Your task to perform on an android device: open app "Grab" (install if not already installed) and enter user name: "interspersion@gmail.com" and password: "aristocrats" Image 0: 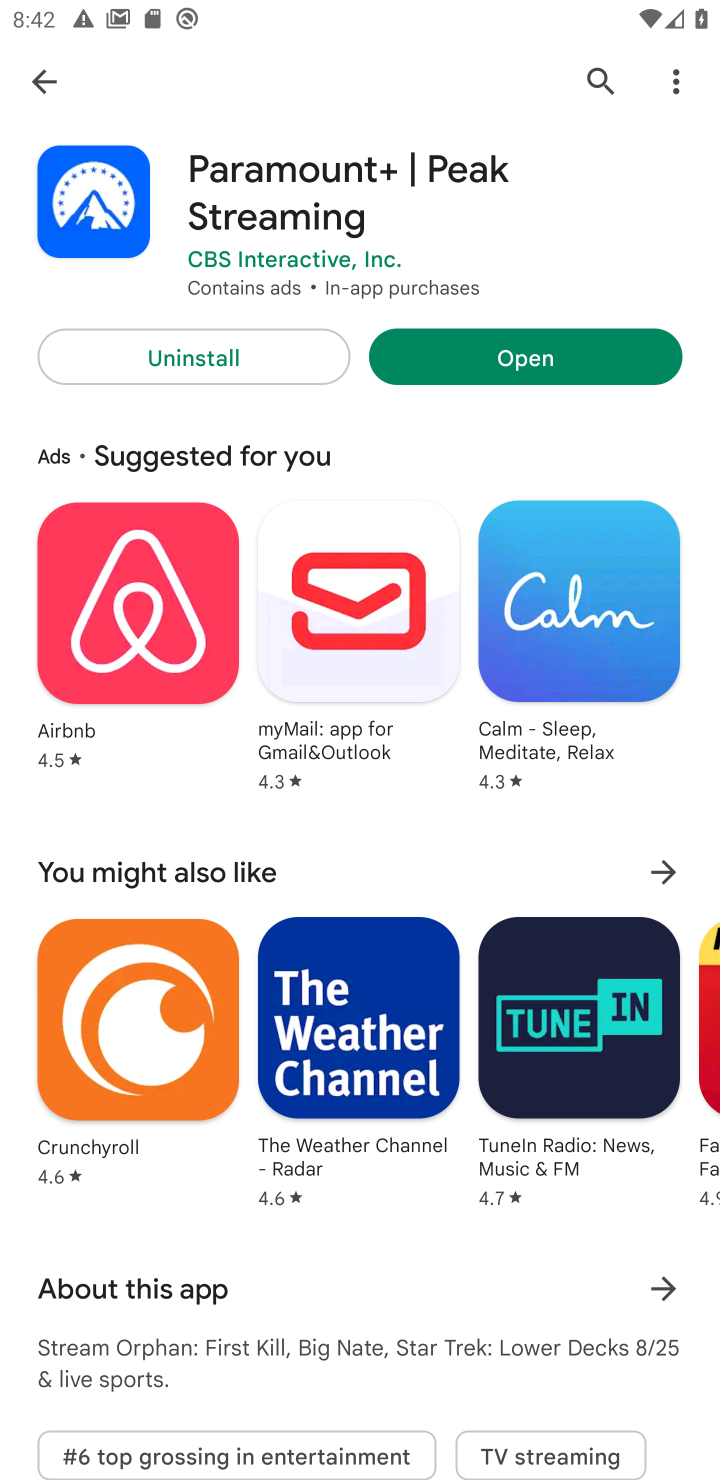
Step 0: press back button
Your task to perform on an android device: open app "Grab" (install if not already installed) and enter user name: "interspersion@gmail.com" and password: "aristocrats" Image 1: 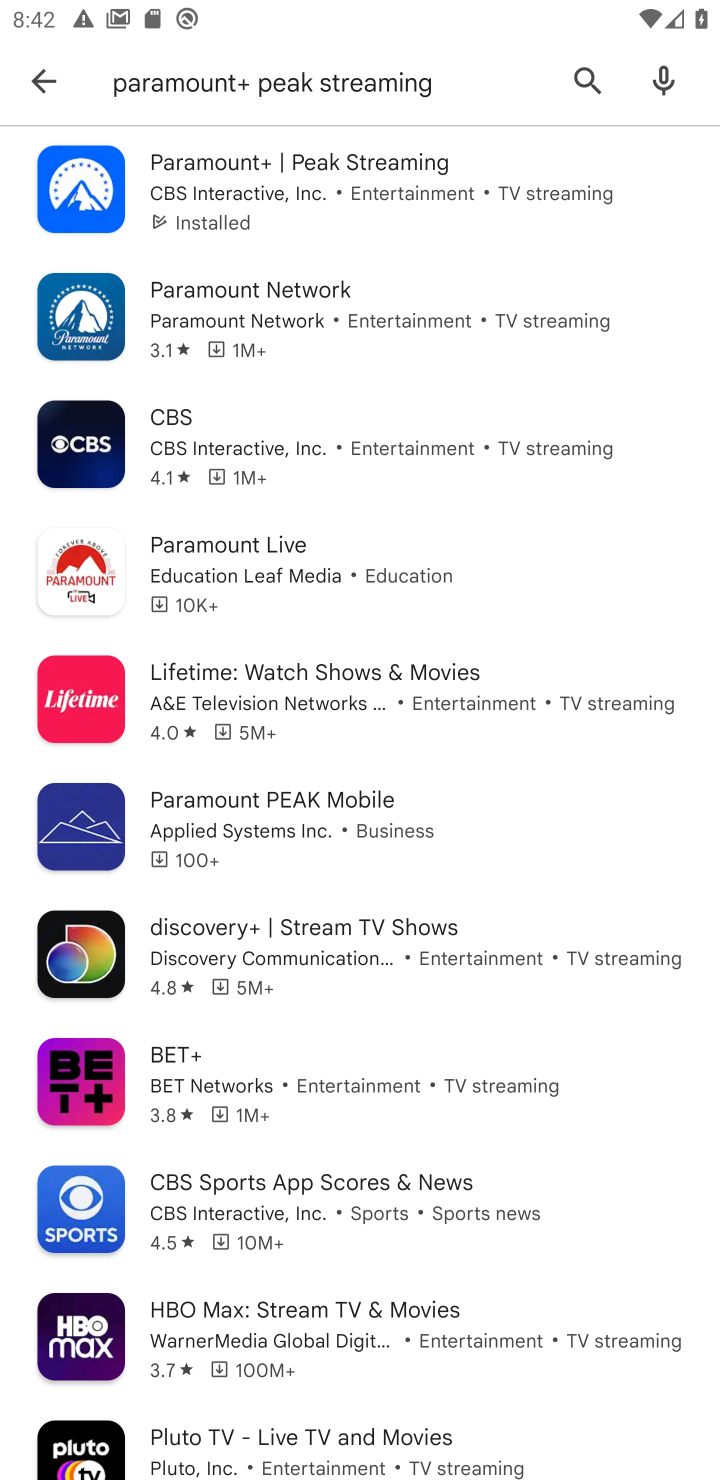
Step 1: press home button
Your task to perform on an android device: open app "Grab" (install if not already installed) and enter user name: "interspersion@gmail.com" and password: "aristocrats" Image 2: 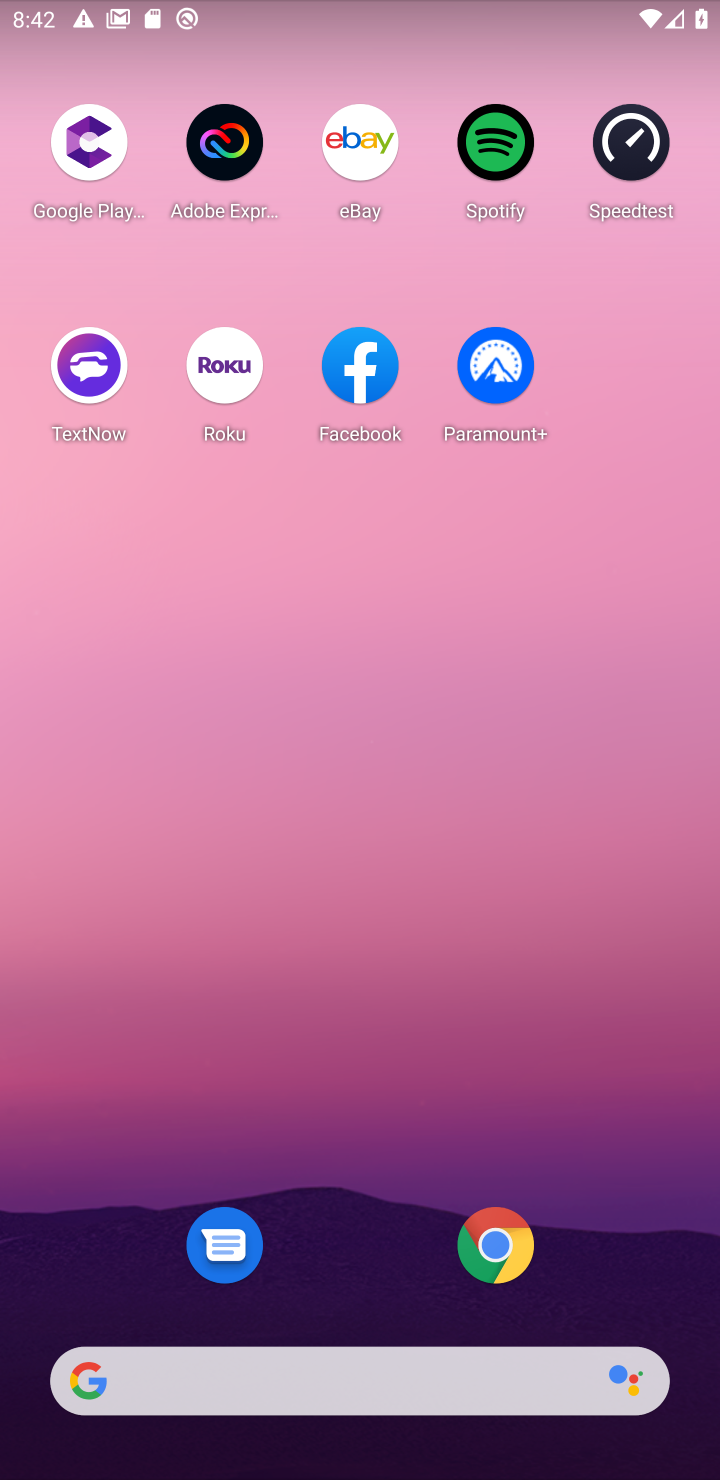
Step 2: drag from (438, 1332) to (300, 87)
Your task to perform on an android device: open app "Grab" (install if not already installed) and enter user name: "interspersion@gmail.com" and password: "aristocrats" Image 3: 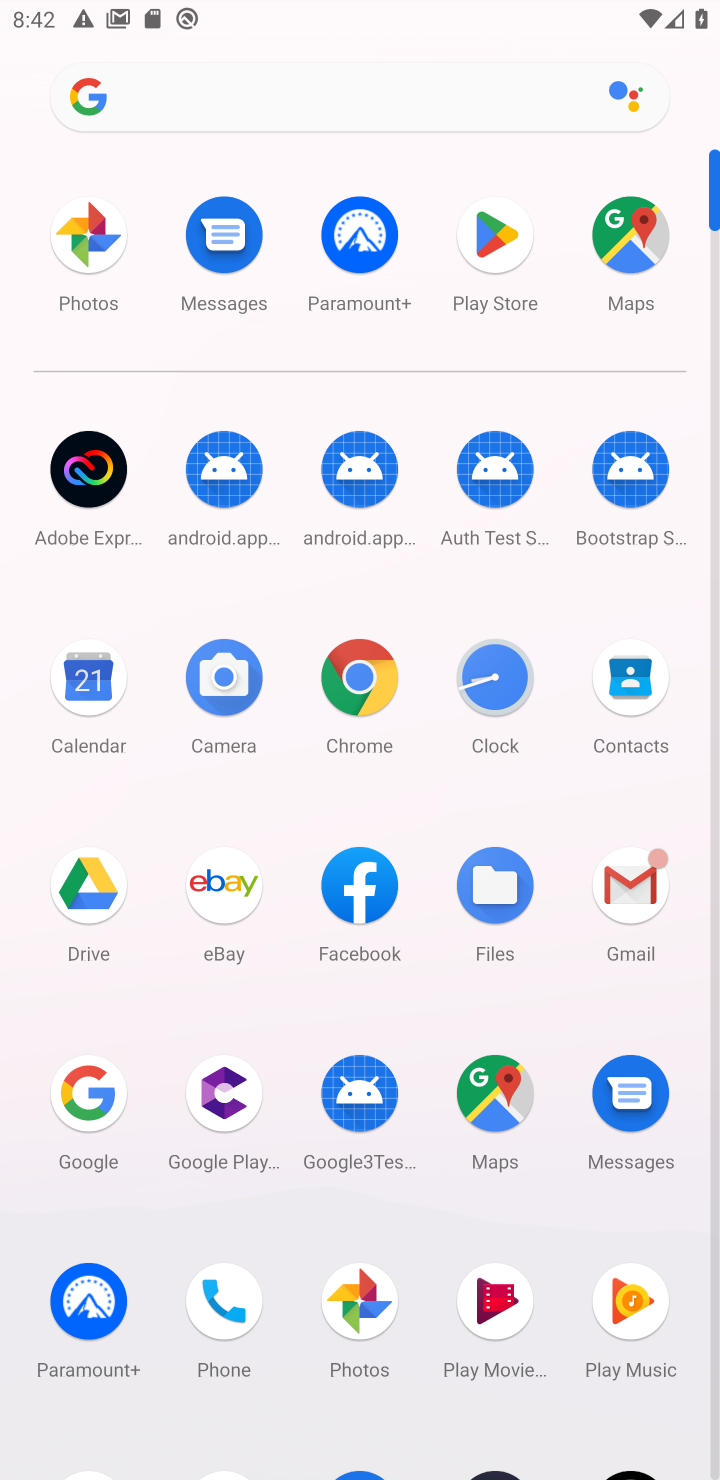
Step 3: drag from (444, 1224) to (534, 223)
Your task to perform on an android device: open app "Grab" (install if not already installed) and enter user name: "interspersion@gmail.com" and password: "aristocrats" Image 4: 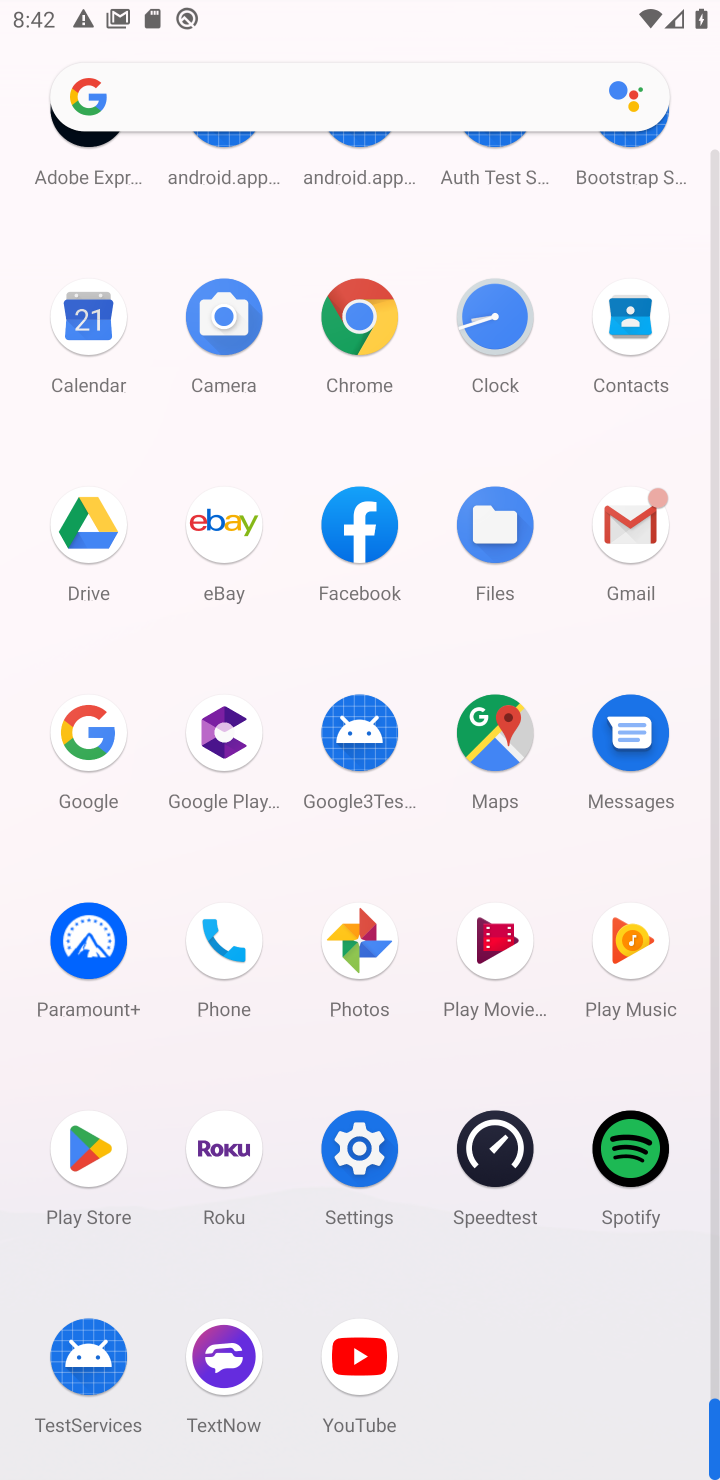
Step 4: click (76, 1154)
Your task to perform on an android device: open app "Grab" (install if not already installed) and enter user name: "interspersion@gmail.com" and password: "aristocrats" Image 5: 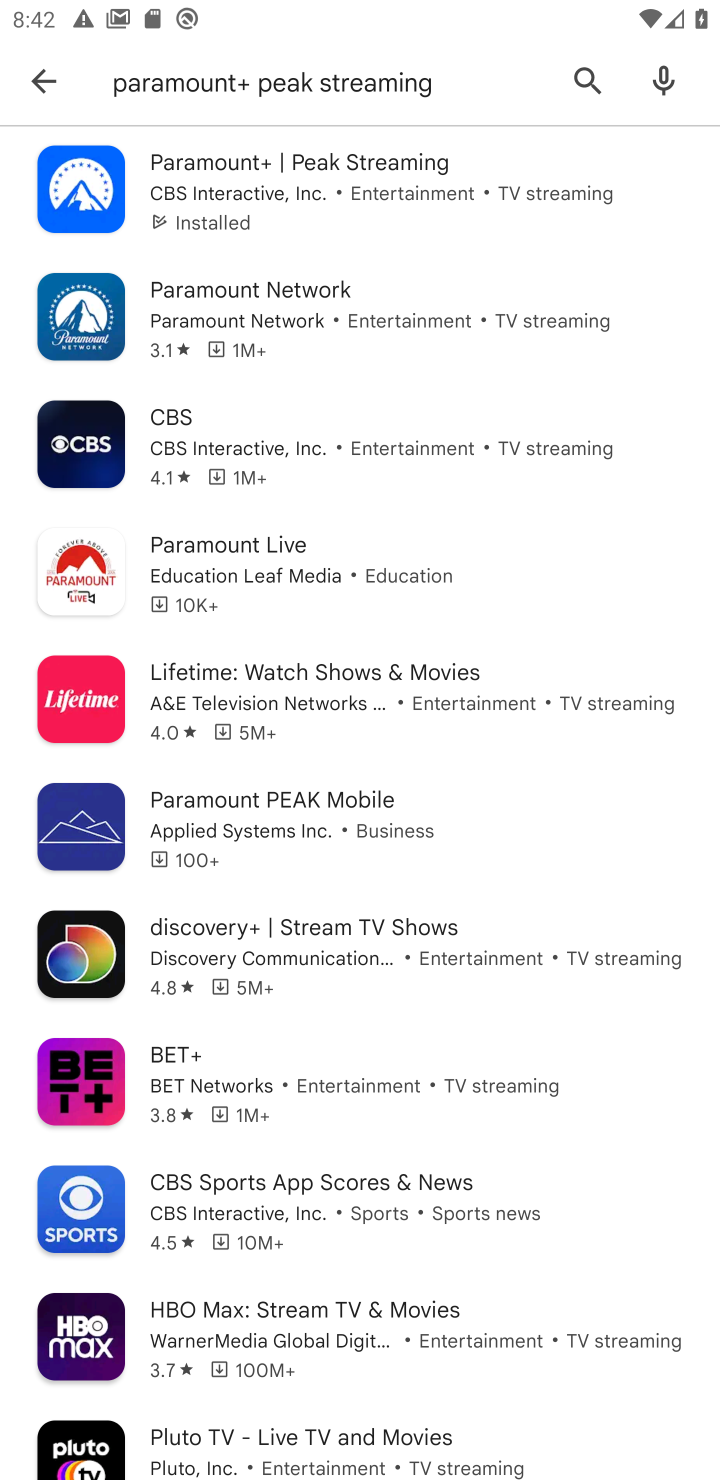
Step 5: click (53, 60)
Your task to perform on an android device: open app "Grab" (install if not already installed) and enter user name: "interspersion@gmail.com" and password: "aristocrats" Image 6: 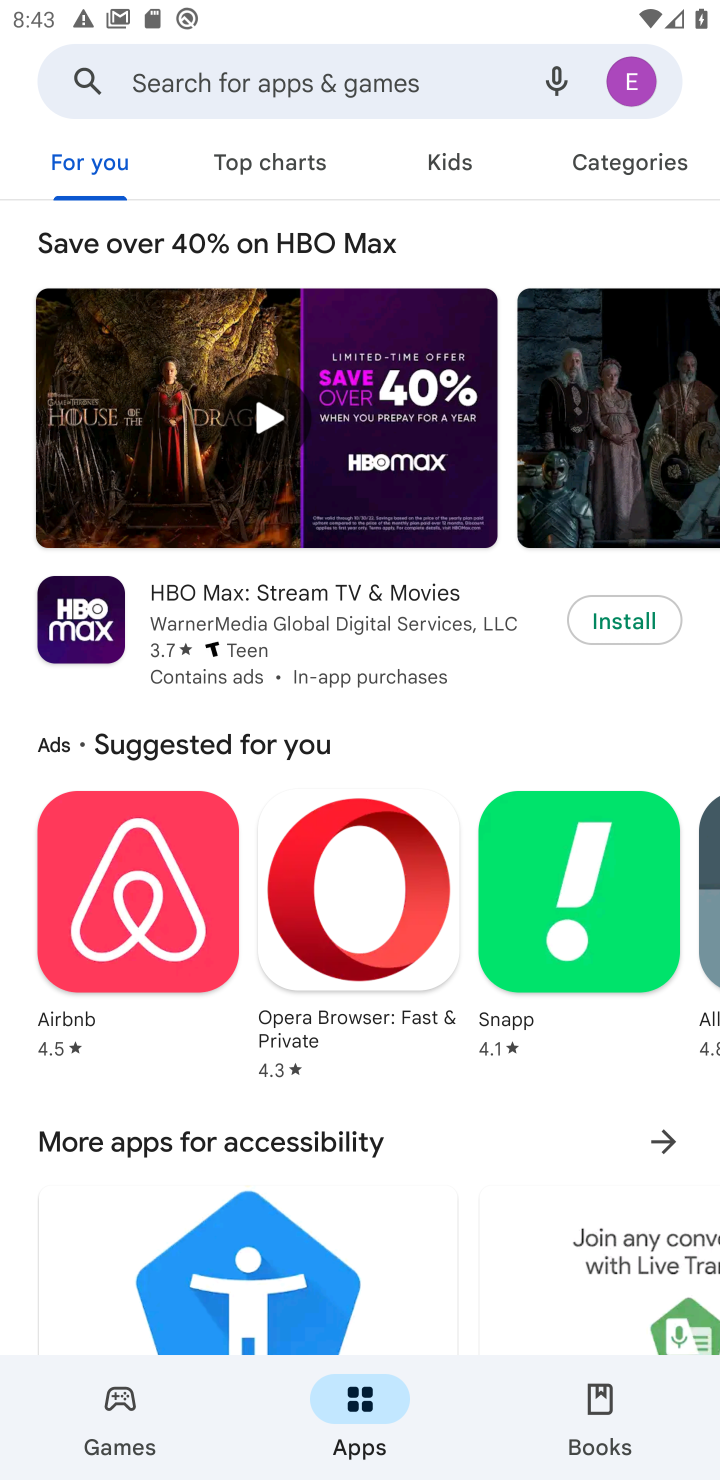
Step 6: click (229, 97)
Your task to perform on an android device: open app "Grab" (install if not already installed) and enter user name: "interspersion@gmail.com" and password: "aristocrats" Image 7: 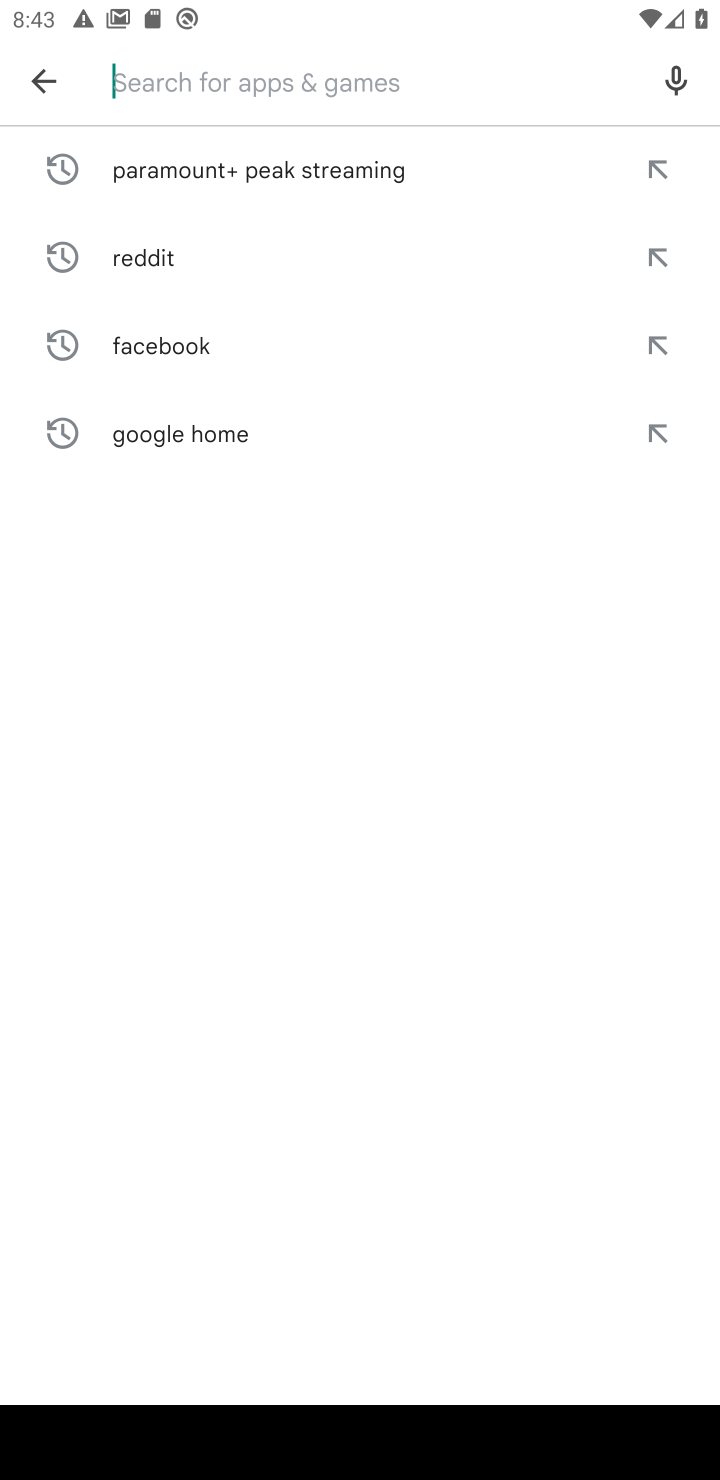
Step 7: type "Grab"
Your task to perform on an android device: open app "Grab" (install if not already installed) and enter user name: "interspersion@gmail.com" and password: "aristocrats" Image 8: 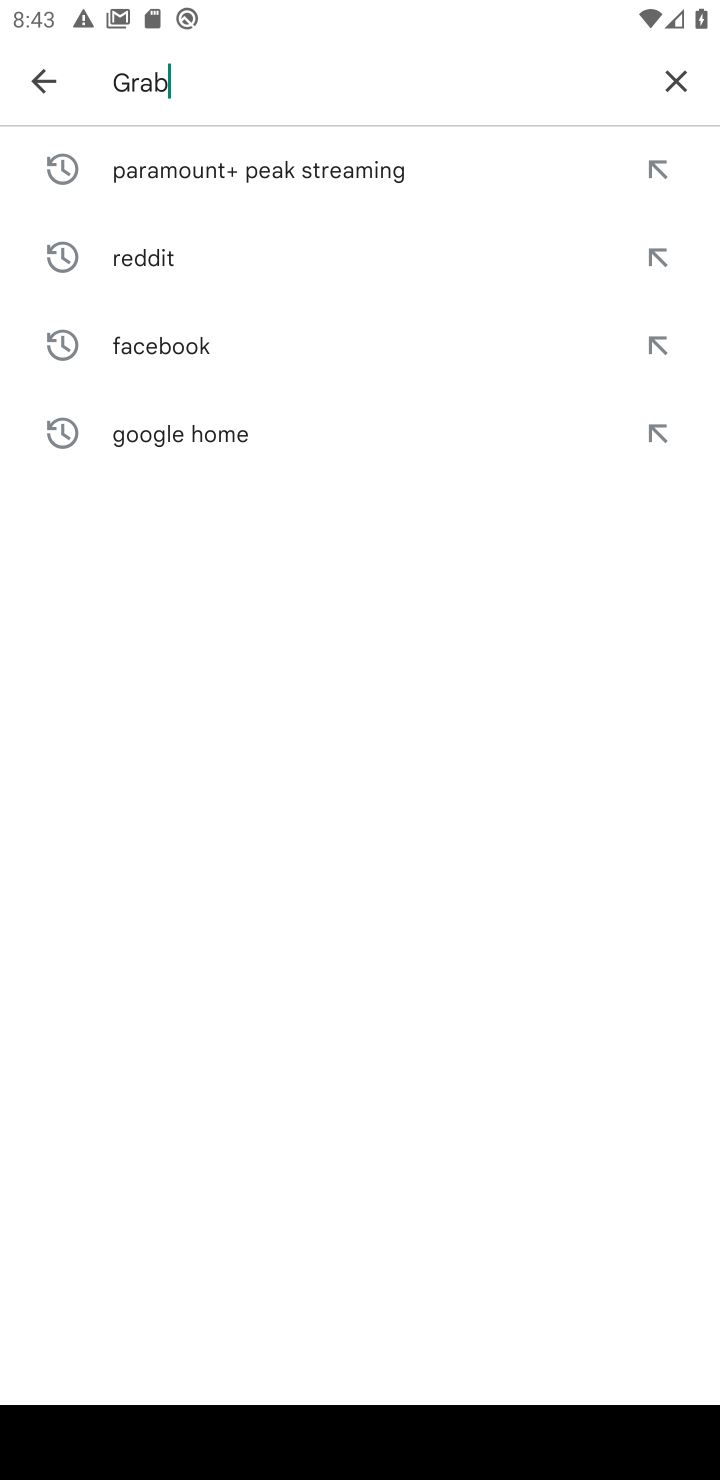
Step 8: type ""
Your task to perform on an android device: open app "Grab" (install if not already installed) and enter user name: "interspersion@gmail.com" and password: "aristocrats" Image 9: 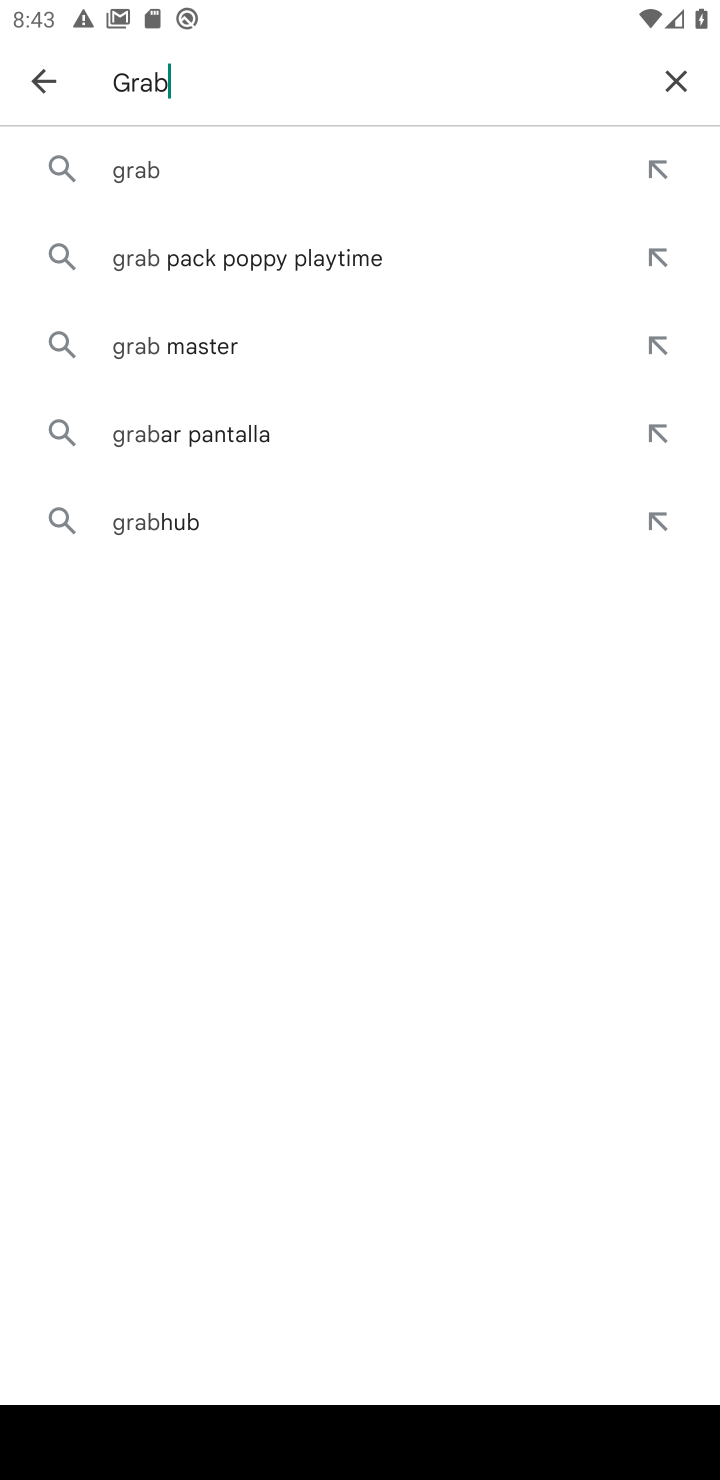
Step 9: click (117, 182)
Your task to perform on an android device: open app "Grab" (install if not already installed) and enter user name: "interspersion@gmail.com" and password: "aristocrats" Image 10: 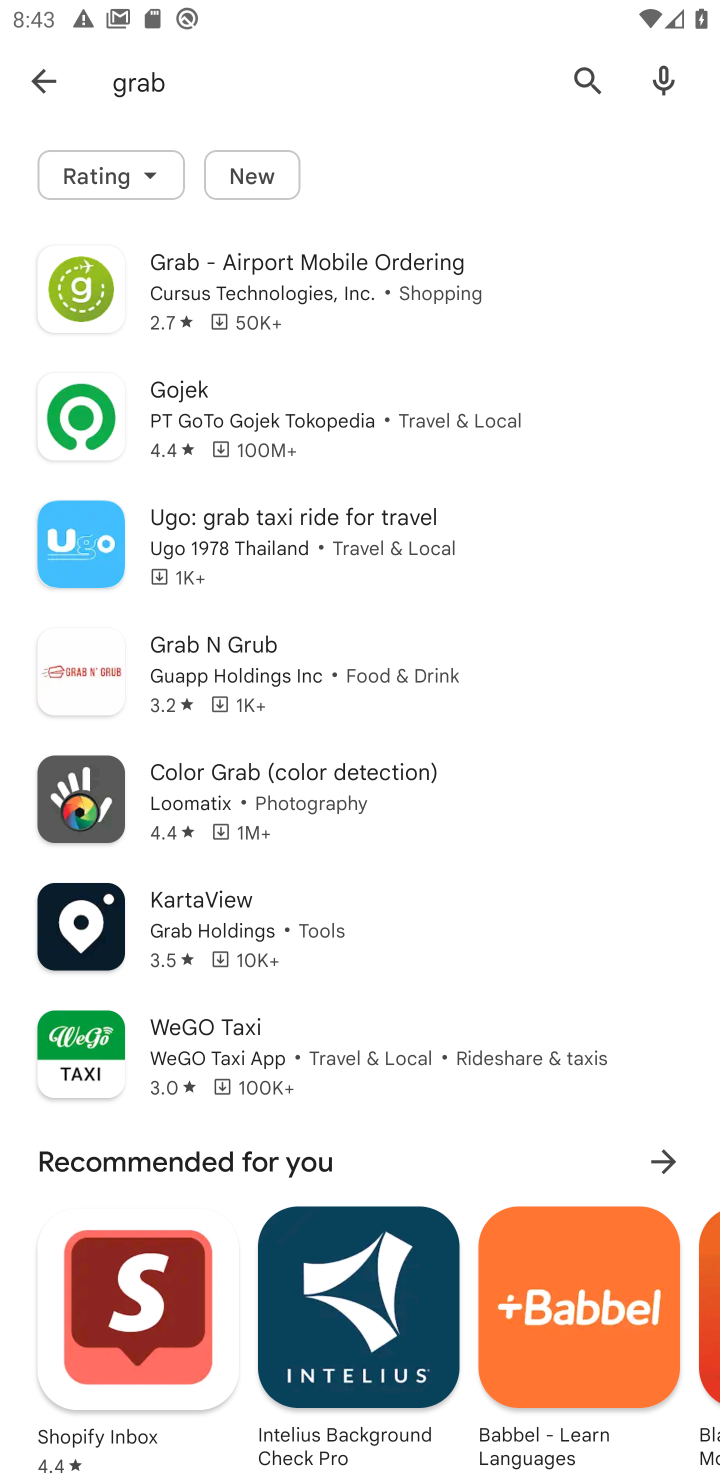
Step 10: click (282, 284)
Your task to perform on an android device: open app "Grab" (install if not already installed) and enter user name: "interspersion@gmail.com" and password: "aristocrats" Image 11: 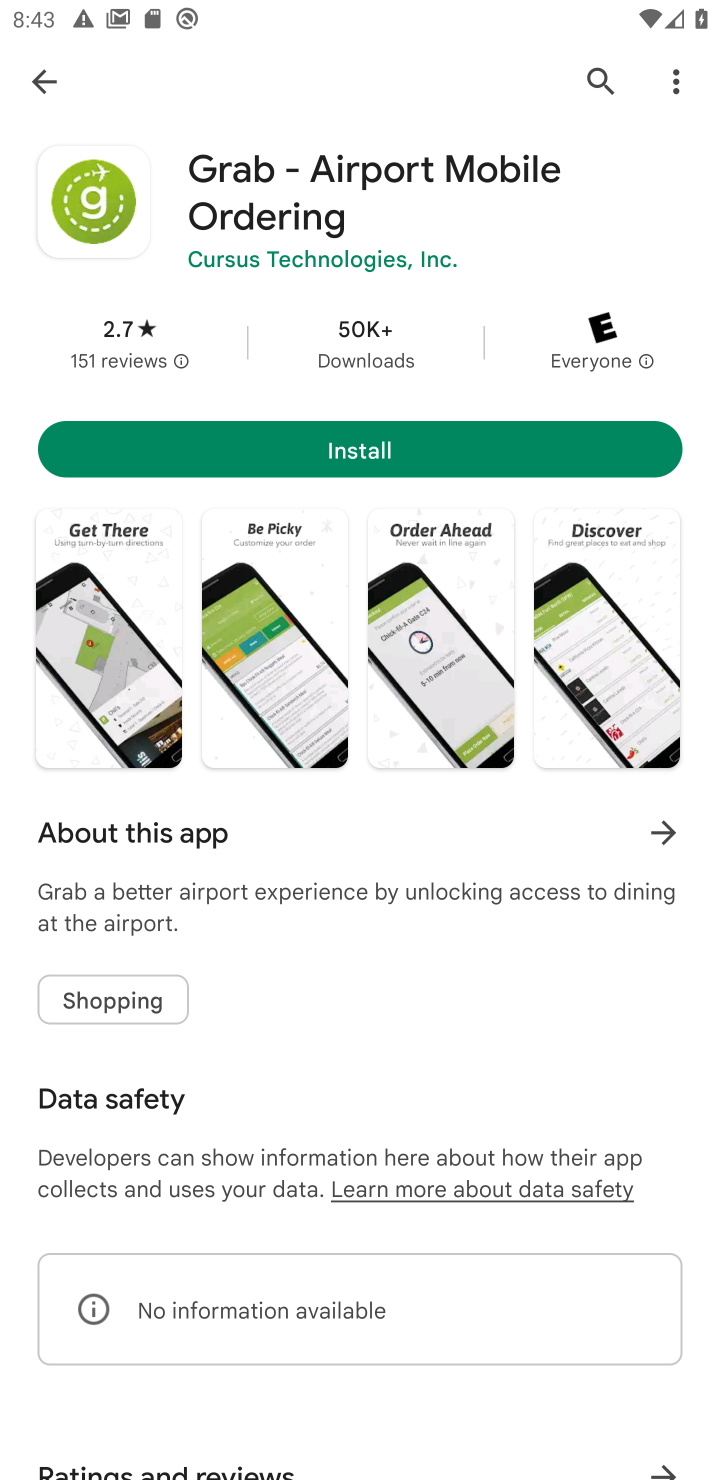
Step 11: click (381, 442)
Your task to perform on an android device: open app "Grab" (install if not already installed) and enter user name: "interspersion@gmail.com" and password: "aristocrats" Image 12: 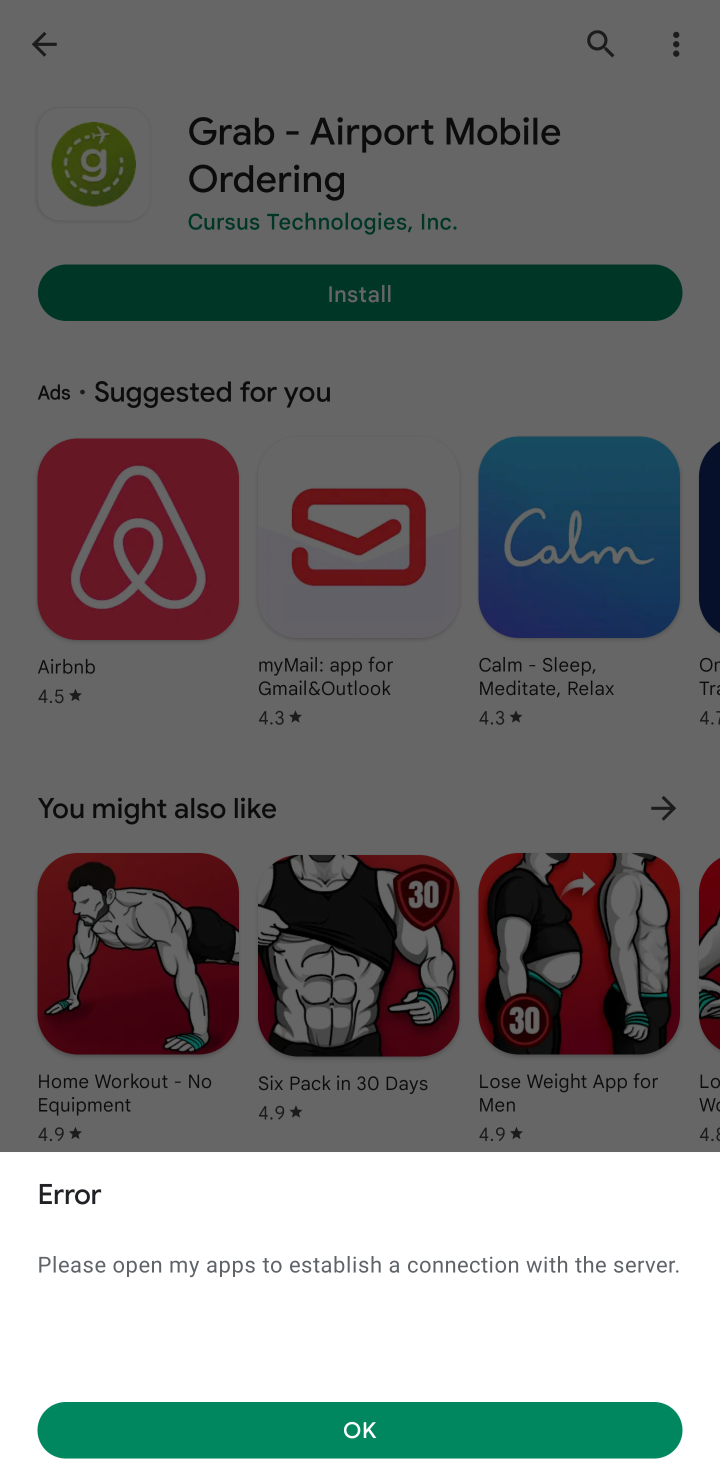
Step 12: click (338, 1451)
Your task to perform on an android device: open app "Grab" (install if not already installed) and enter user name: "interspersion@gmail.com" and password: "aristocrats" Image 13: 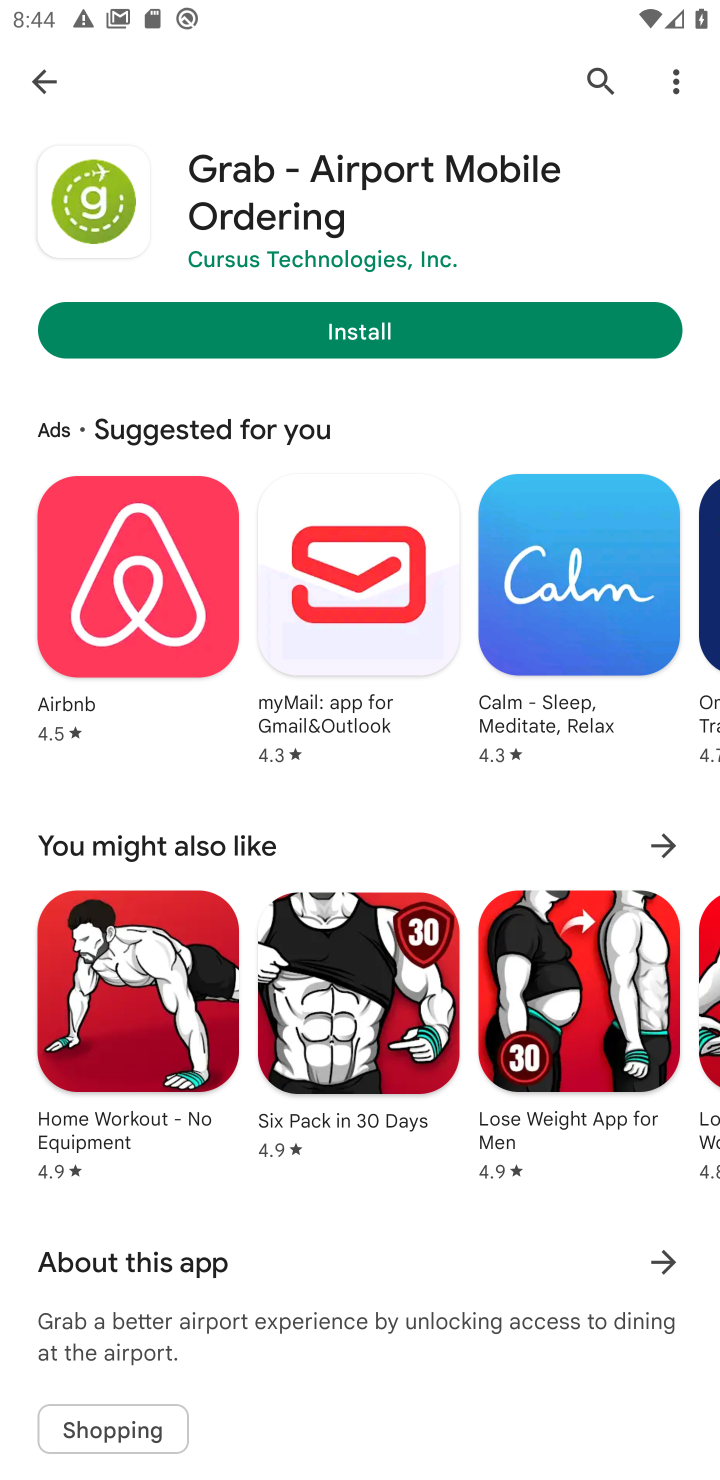
Step 13: task complete